Your task to perform on an android device: Do I have any events today? Image 0: 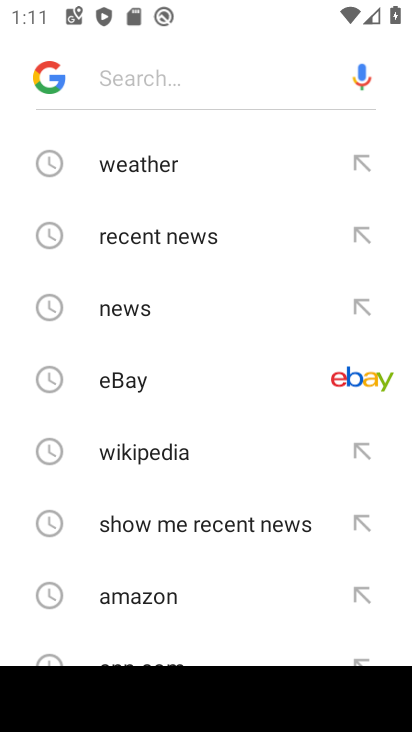
Step 0: press home button
Your task to perform on an android device: Do I have any events today? Image 1: 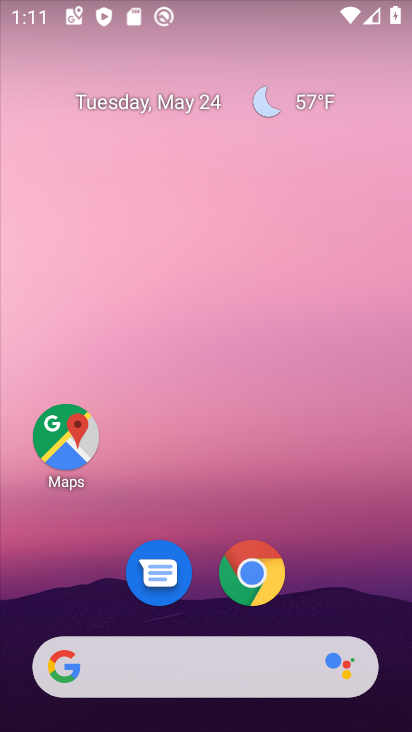
Step 1: drag from (331, 566) to (238, 27)
Your task to perform on an android device: Do I have any events today? Image 2: 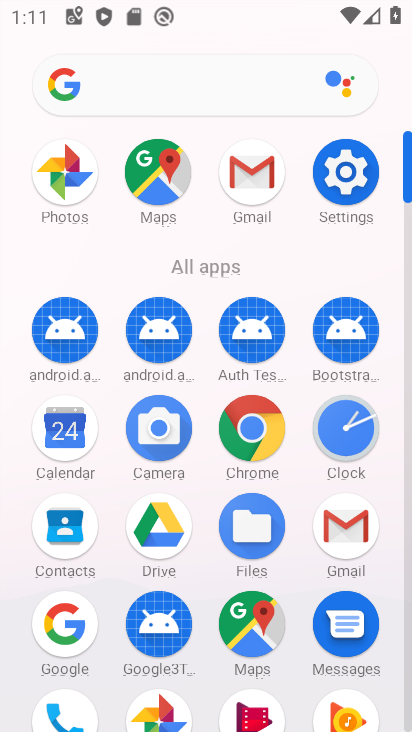
Step 2: click (73, 438)
Your task to perform on an android device: Do I have any events today? Image 3: 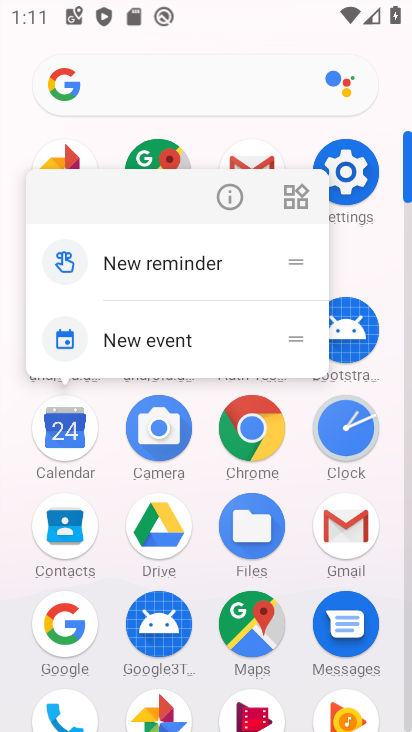
Step 3: click (52, 441)
Your task to perform on an android device: Do I have any events today? Image 4: 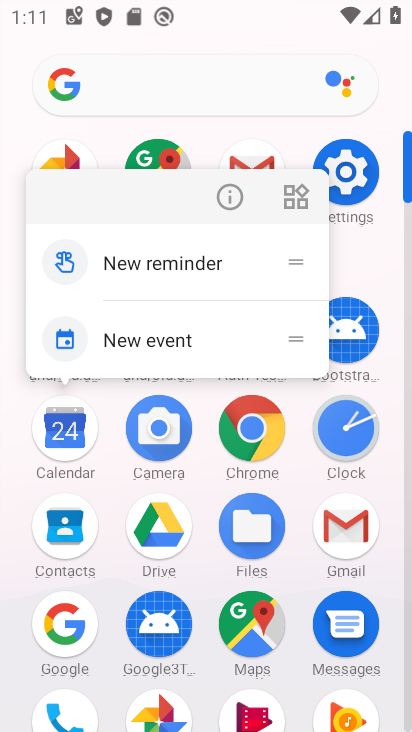
Step 4: click (53, 440)
Your task to perform on an android device: Do I have any events today? Image 5: 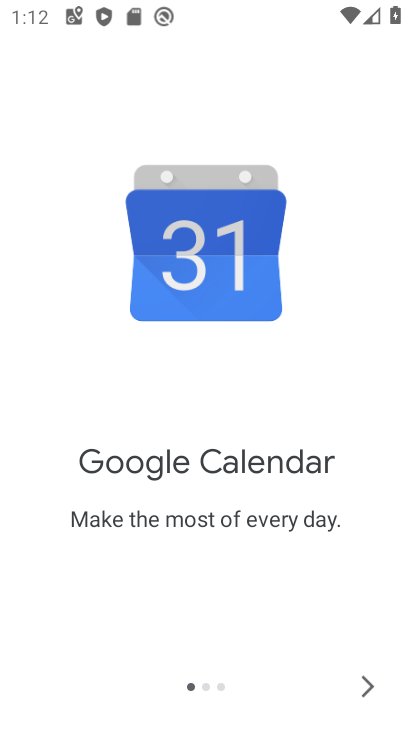
Step 5: click (371, 688)
Your task to perform on an android device: Do I have any events today? Image 6: 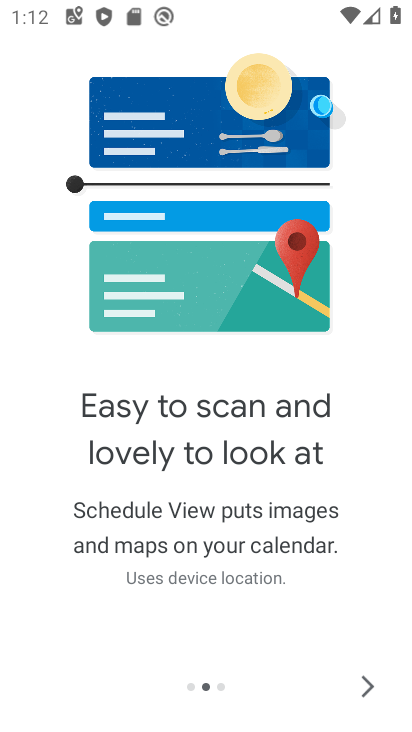
Step 6: click (370, 688)
Your task to perform on an android device: Do I have any events today? Image 7: 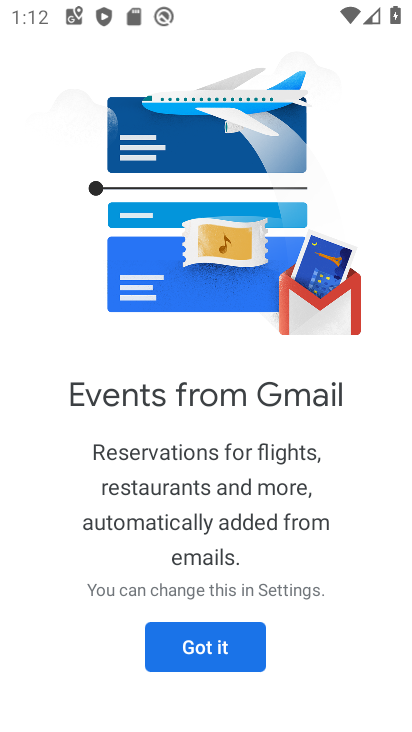
Step 7: click (231, 646)
Your task to perform on an android device: Do I have any events today? Image 8: 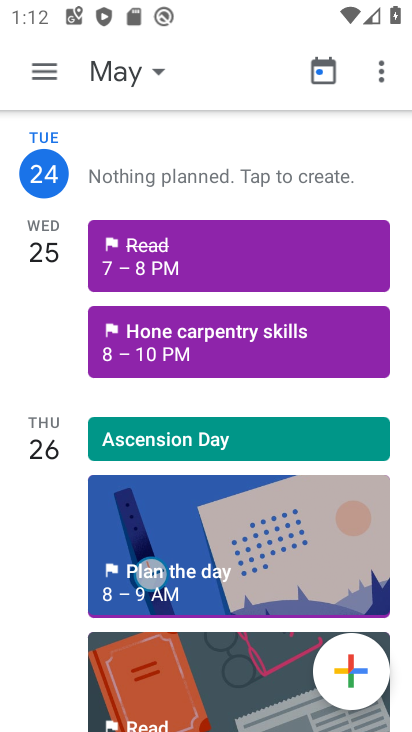
Step 8: task complete